Your task to perform on an android device: turn smart compose on in the gmail app Image 0: 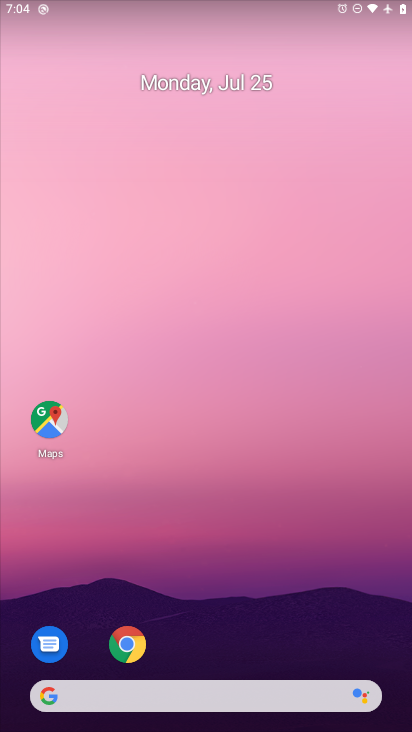
Step 0: press home button
Your task to perform on an android device: turn smart compose on in the gmail app Image 1: 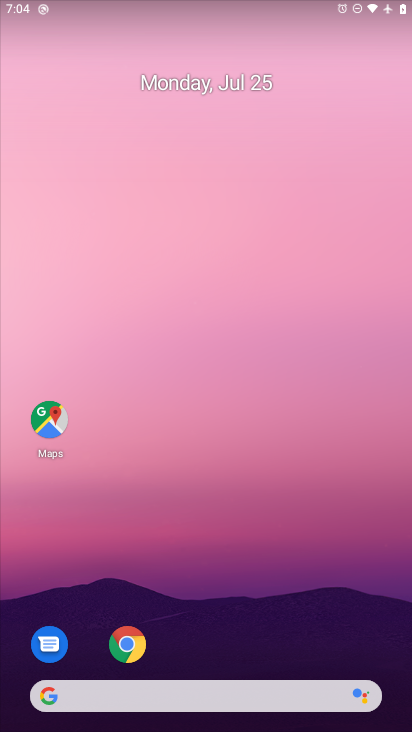
Step 1: drag from (278, 620) to (330, 135)
Your task to perform on an android device: turn smart compose on in the gmail app Image 2: 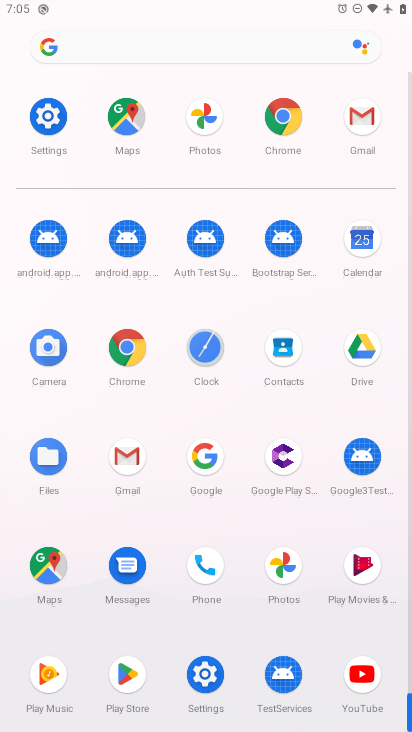
Step 2: click (362, 122)
Your task to perform on an android device: turn smart compose on in the gmail app Image 3: 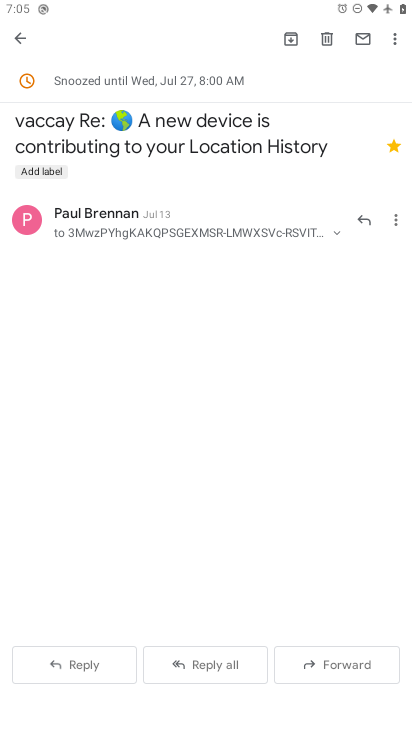
Step 3: click (16, 36)
Your task to perform on an android device: turn smart compose on in the gmail app Image 4: 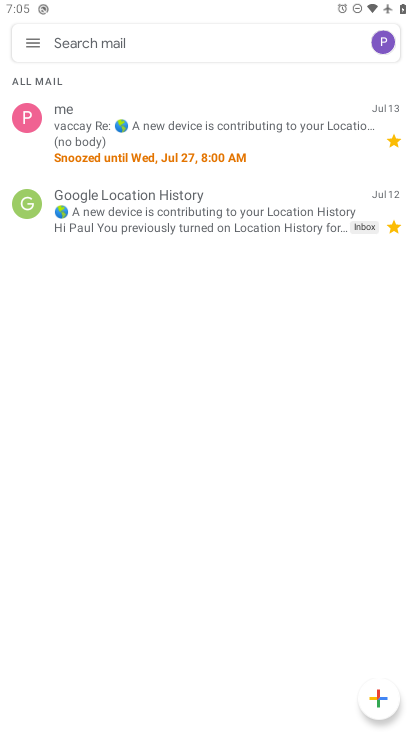
Step 4: click (24, 44)
Your task to perform on an android device: turn smart compose on in the gmail app Image 5: 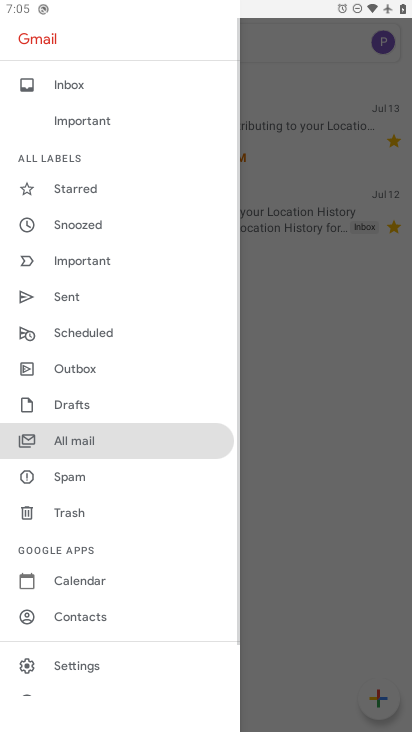
Step 5: click (76, 671)
Your task to perform on an android device: turn smart compose on in the gmail app Image 6: 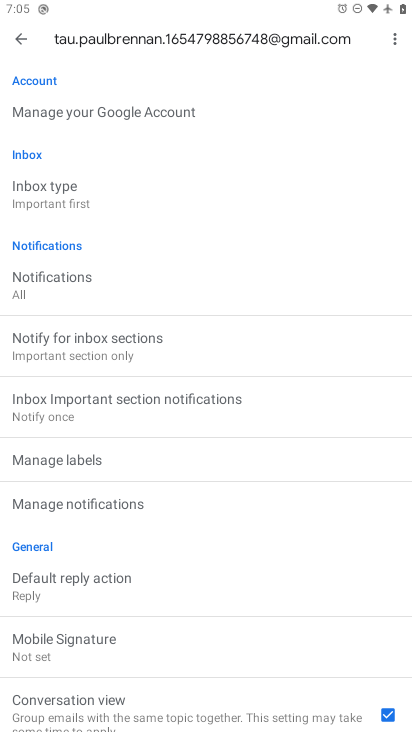
Step 6: task complete